Your task to perform on an android device: Show me recent news Image 0: 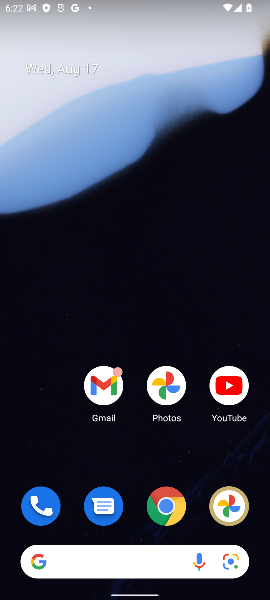
Step 0: drag from (192, 461) to (250, 102)
Your task to perform on an android device: Show me recent news Image 1: 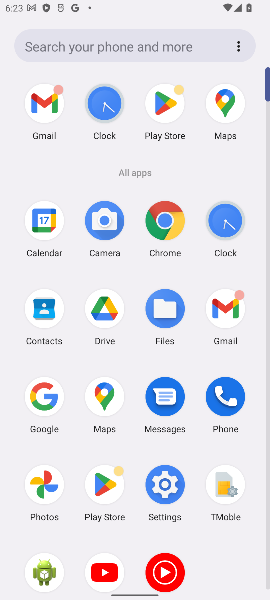
Step 1: click (166, 218)
Your task to perform on an android device: Show me recent news Image 2: 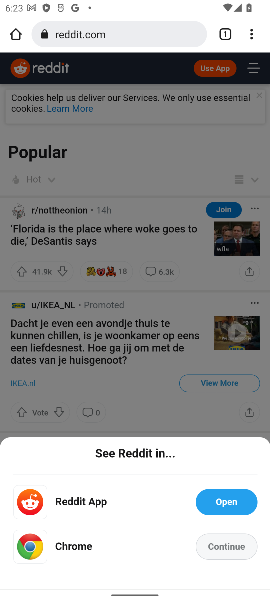
Step 2: click (140, 40)
Your task to perform on an android device: Show me recent news Image 3: 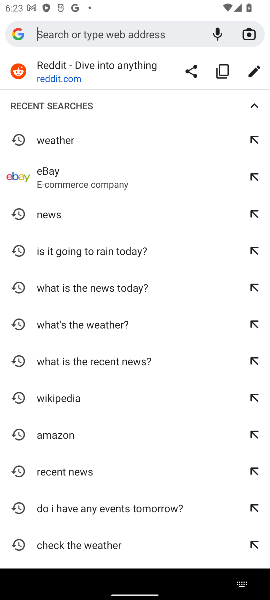
Step 3: click (57, 219)
Your task to perform on an android device: Show me recent news Image 4: 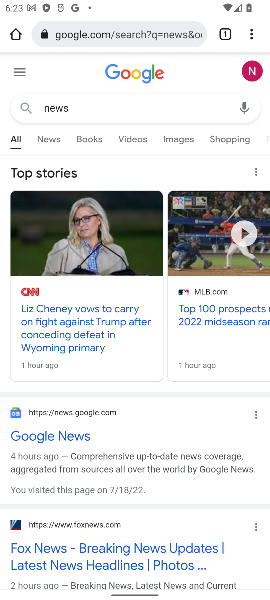
Step 4: click (72, 436)
Your task to perform on an android device: Show me recent news Image 5: 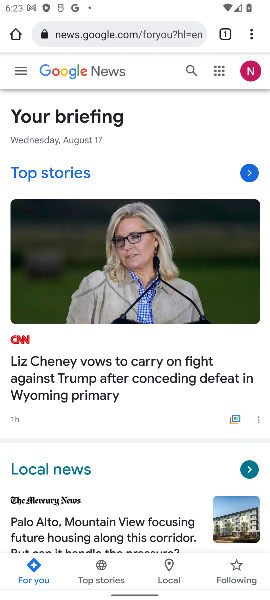
Step 5: task complete